Your task to perform on an android device: Find coffee shops on Maps Image 0: 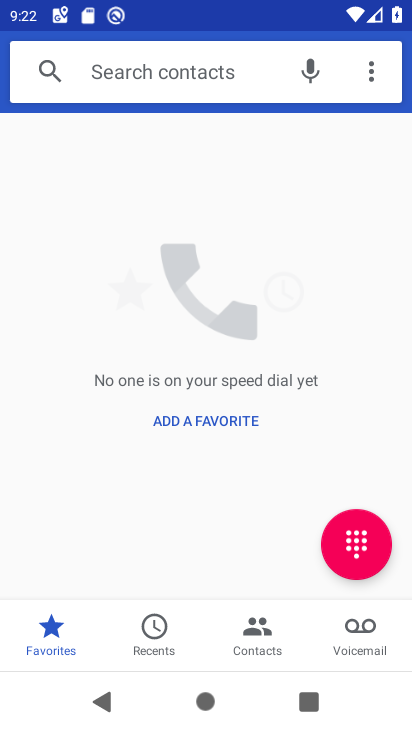
Step 0: press home button
Your task to perform on an android device: Find coffee shops on Maps Image 1: 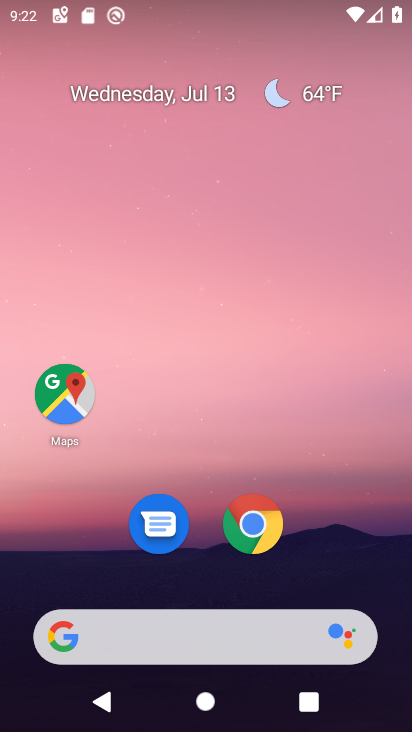
Step 1: drag from (168, 590) to (147, 16)
Your task to perform on an android device: Find coffee shops on Maps Image 2: 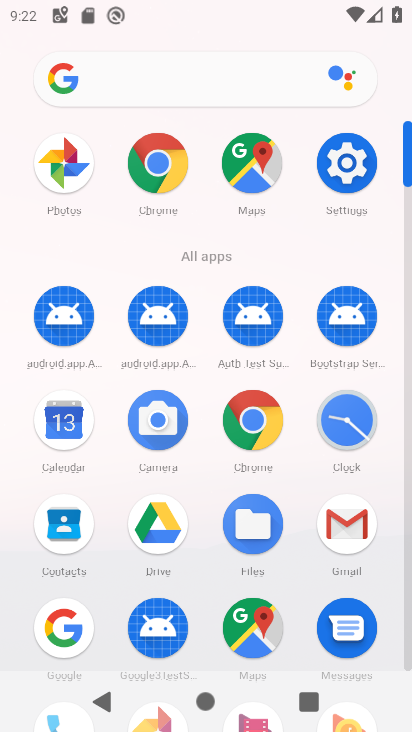
Step 2: click (252, 609)
Your task to perform on an android device: Find coffee shops on Maps Image 3: 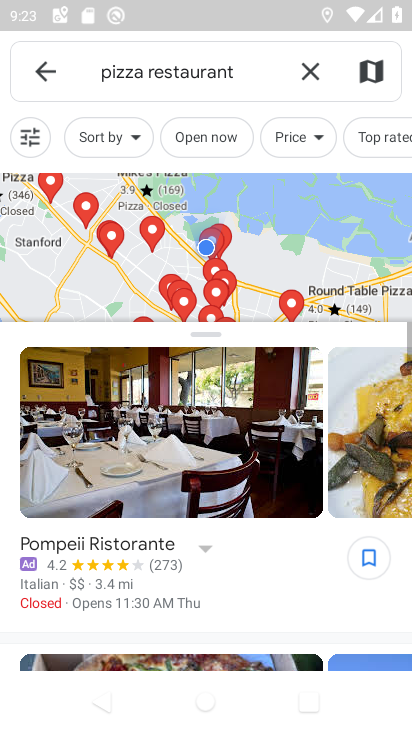
Step 3: click (314, 59)
Your task to perform on an android device: Find coffee shops on Maps Image 4: 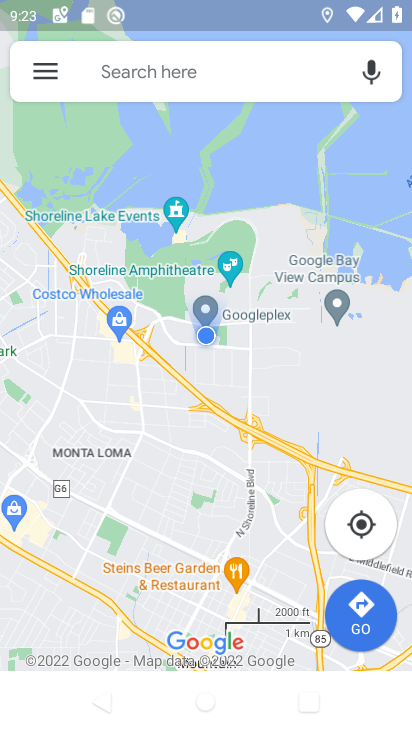
Step 4: click (215, 70)
Your task to perform on an android device: Find coffee shops on Maps Image 5: 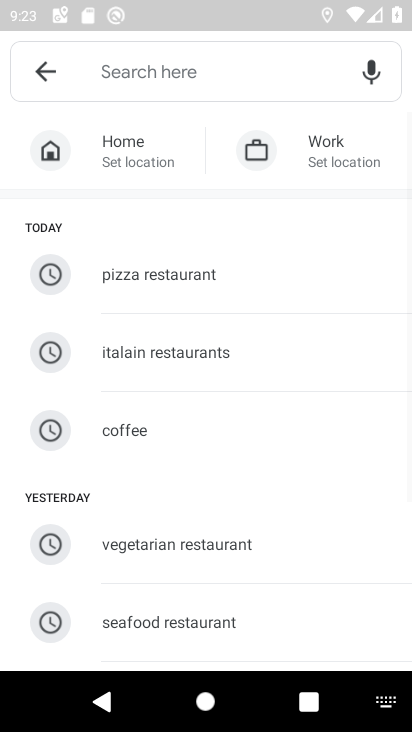
Step 5: click (154, 439)
Your task to perform on an android device: Find coffee shops on Maps Image 6: 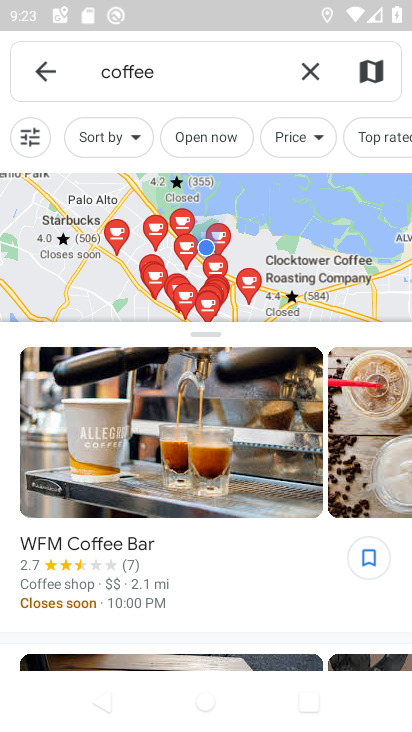
Step 6: task complete